Your task to perform on an android device: Open Google Maps Image 0: 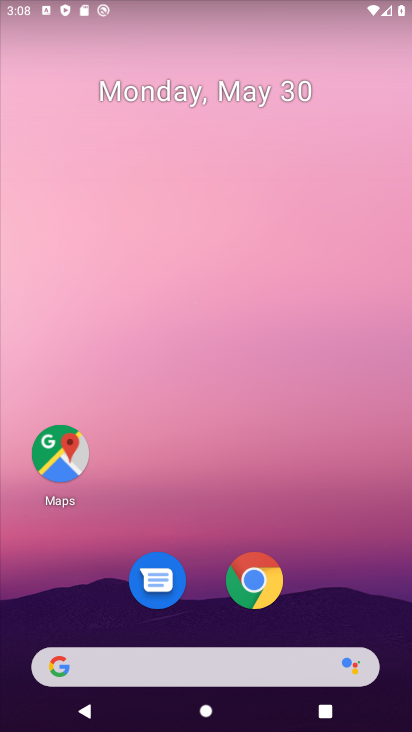
Step 0: click (59, 463)
Your task to perform on an android device: Open Google Maps Image 1: 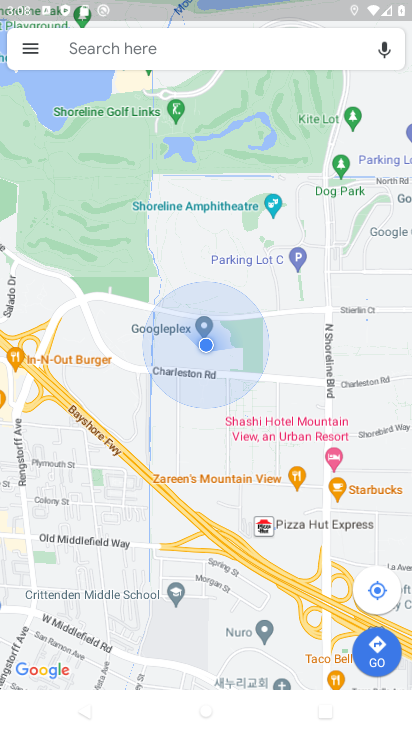
Step 1: task complete